Your task to perform on an android device: Open display settings Image 0: 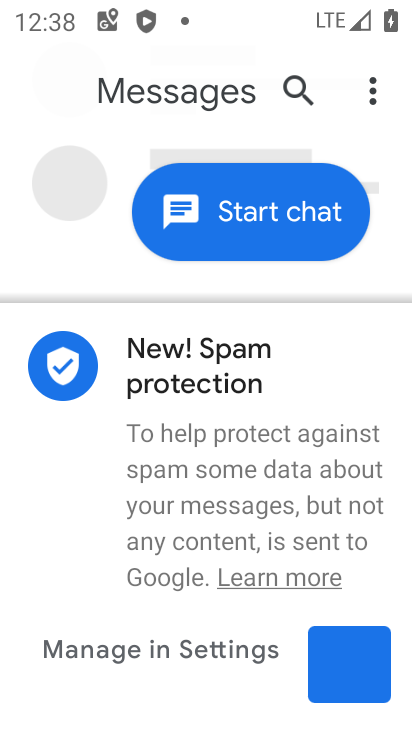
Step 0: press home button
Your task to perform on an android device: Open display settings Image 1: 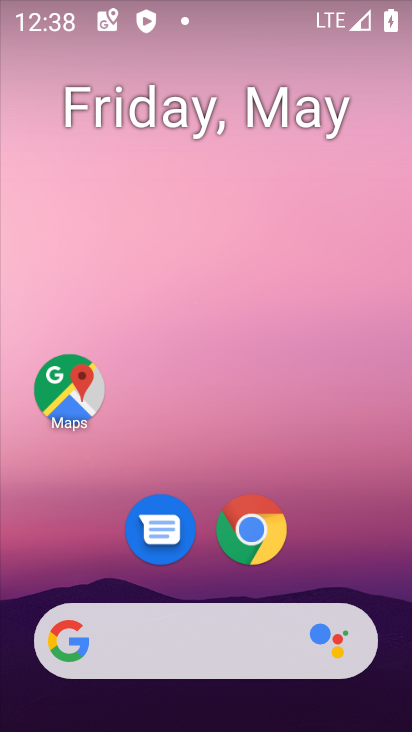
Step 1: drag from (307, 555) to (163, 203)
Your task to perform on an android device: Open display settings Image 2: 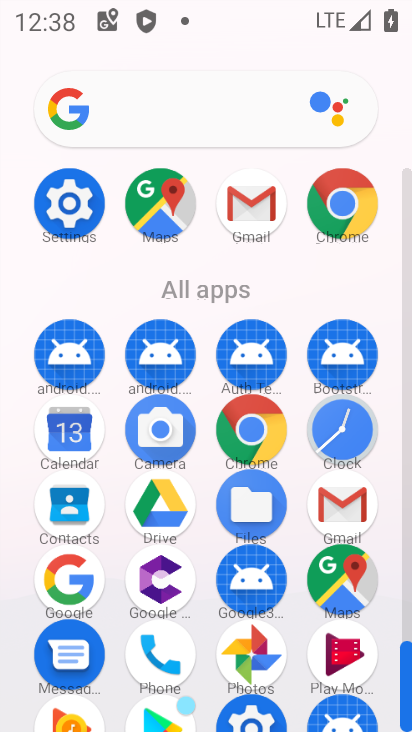
Step 2: click (69, 201)
Your task to perform on an android device: Open display settings Image 3: 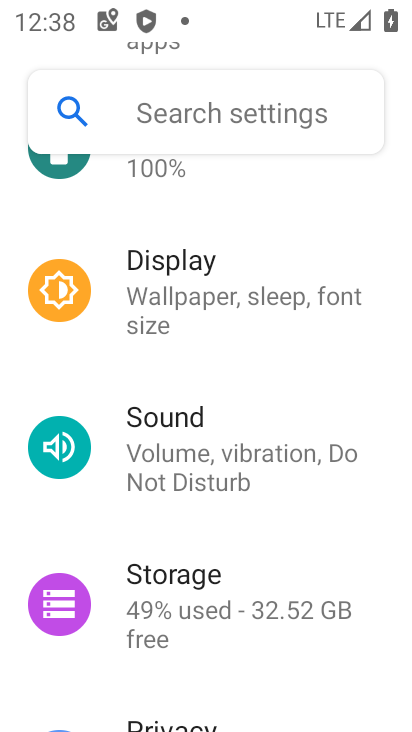
Step 3: click (174, 304)
Your task to perform on an android device: Open display settings Image 4: 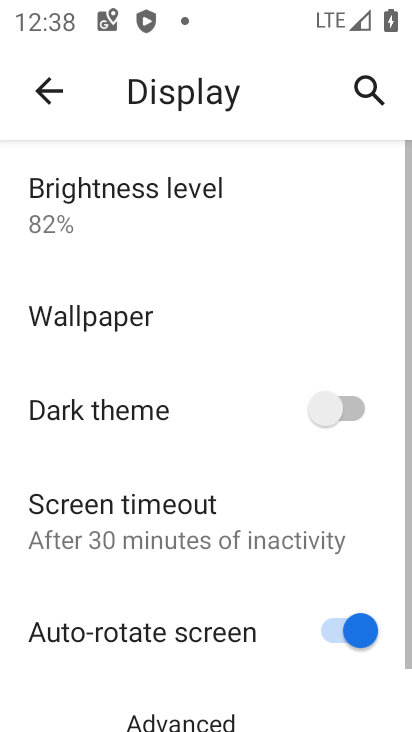
Step 4: drag from (243, 704) to (211, 340)
Your task to perform on an android device: Open display settings Image 5: 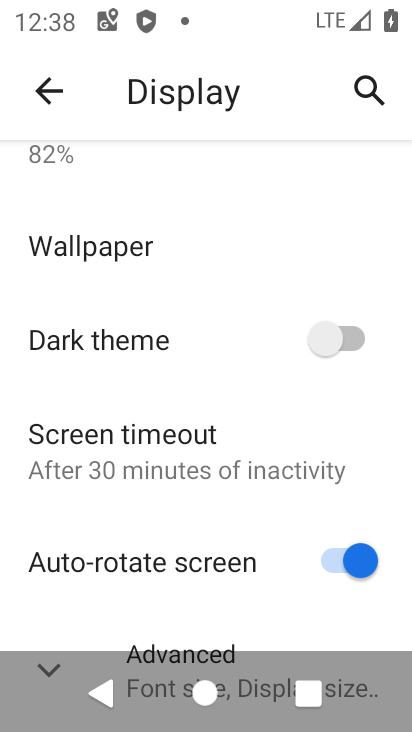
Step 5: click (170, 643)
Your task to perform on an android device: Open display settings Image 6: 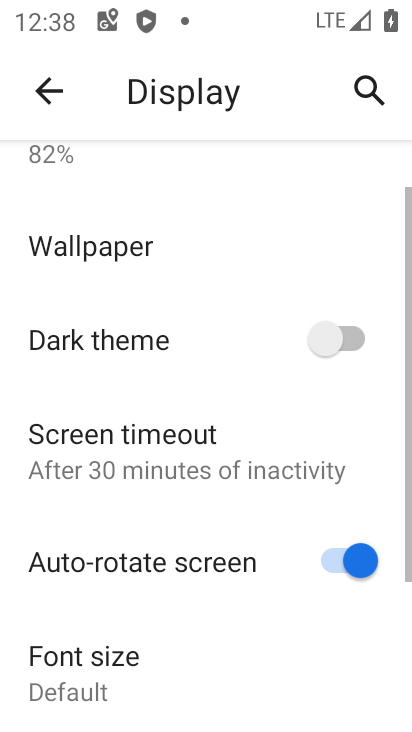
Step 6: task complete